Your task to perform on an android device: Toggle the flashlight Image 0: 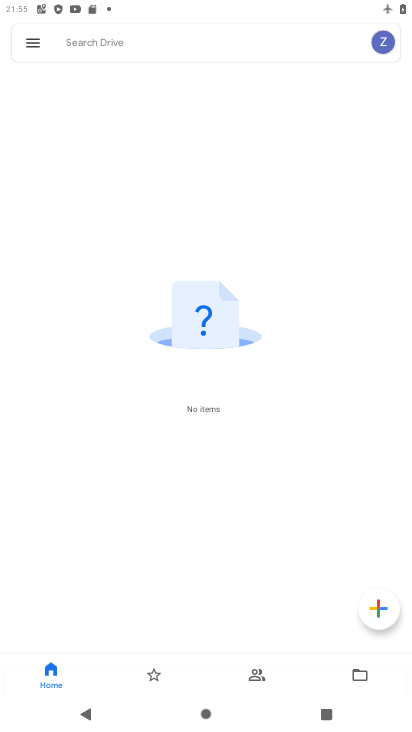
Step 0: press home button
Your task to perform on an android device: Toggle the flashlight Image 1: 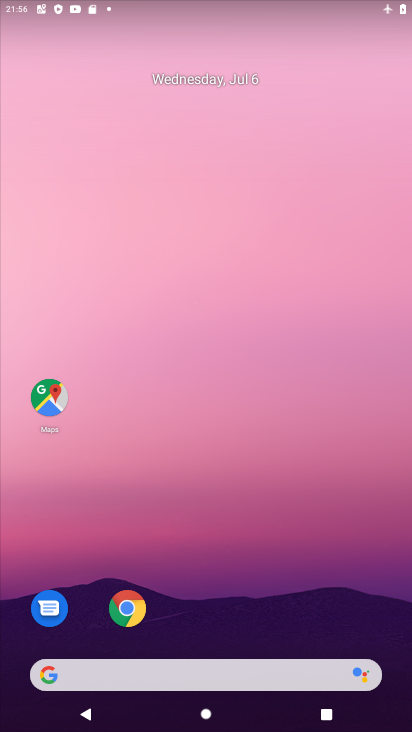
Step 1: drag from (196, 548) to (170, 85)
Your task to perform on an android device: Toggle the flashlight Image 2: 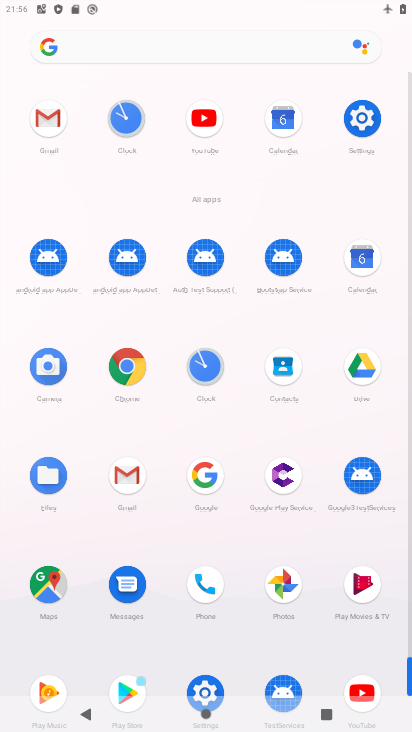
Step 2: click (365, 120)
Your task to perform on an android device: Toggle the flashlight Image 3: 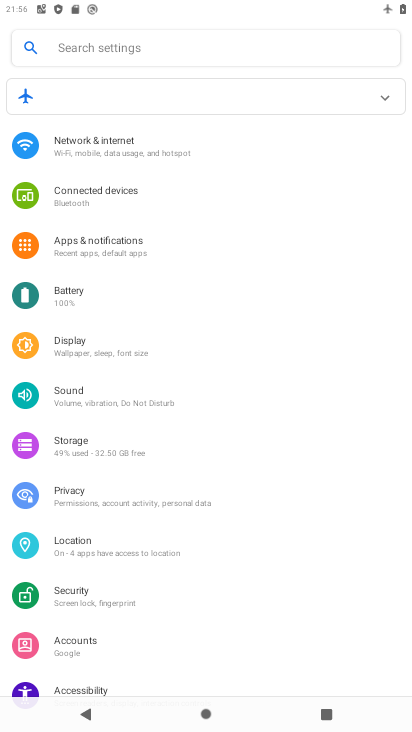
Step 3: click (83, 347)
Your task to perform on an android device: Toggle the flashlight Image 4: 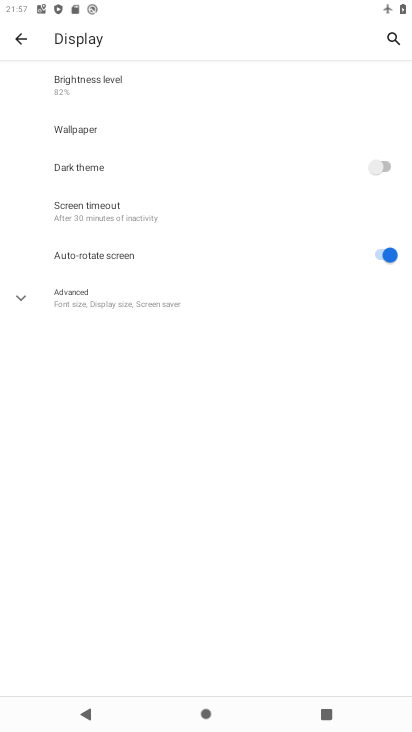
Step 4: task complete